Your task to perform on an android device: move an email to a new category in the gmail app Image 0: 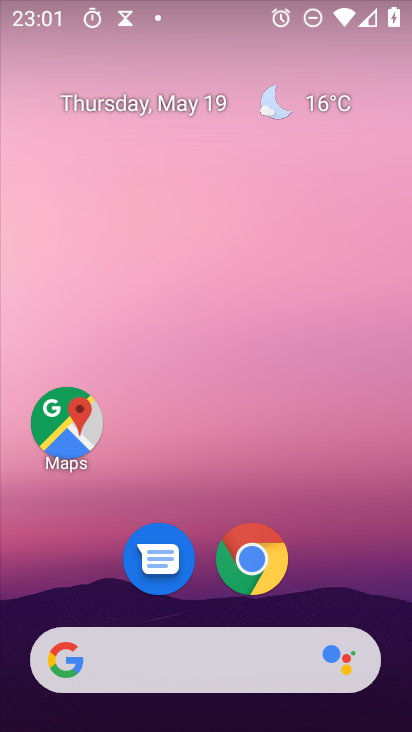
Step 0: drag from (235, 719) to (204, 155)
Your task to perform on an android device: move an email to a new category in the gmail app Image 1: 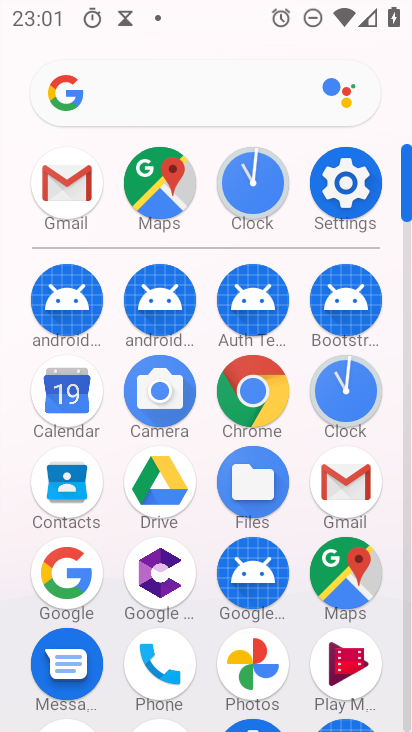
Step 1: click (61, 186)
Your task to perform on an android device: move an email to a new category in the gmail app Image 2: 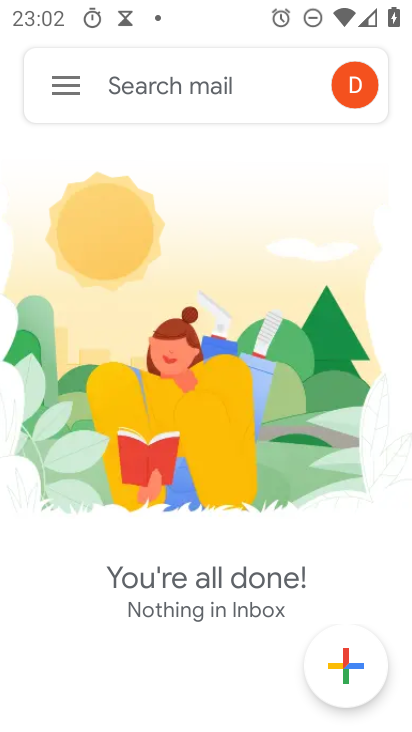
Step 2: task complete